Your task to perform on an android device: Go to Yahoo.com Image 0: 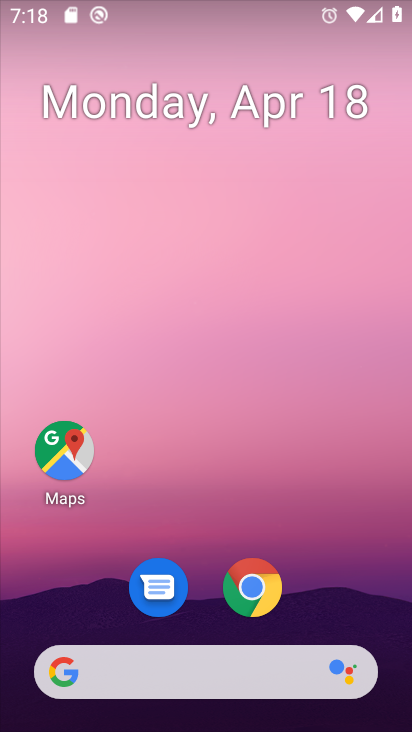
Step 0: drag from (338, 600) to (308, 206)
Your task to perform on an android device: Go to Yahoo.com Image 1: 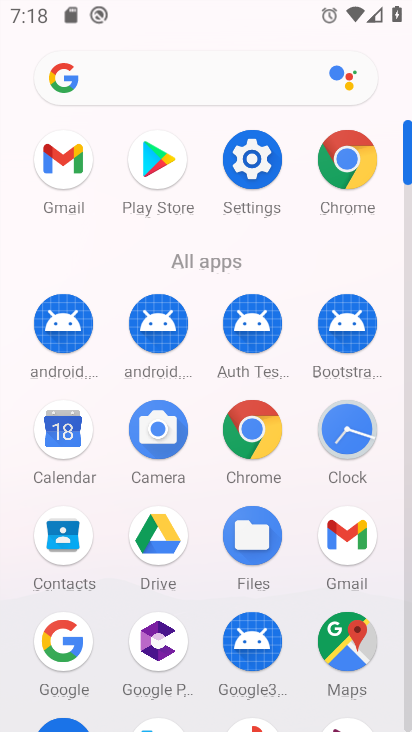
Step 1: click (364, 154)
Your task to perform on an android device: Go to Yahoo.com Image 2: 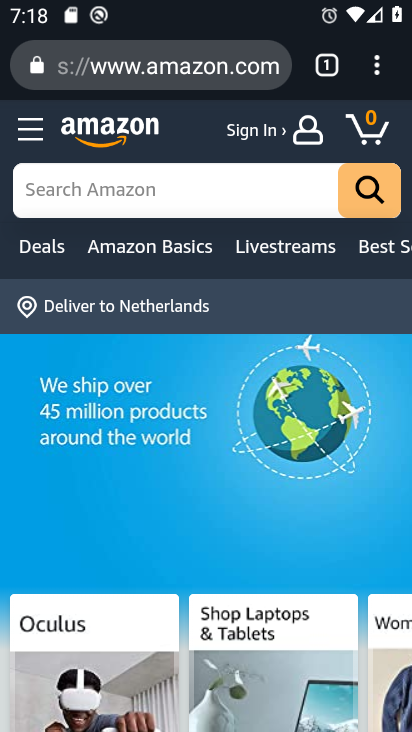
Step 2: click (216, 190)
Your task to perform on an android device: Go to Yahoo.com Image 3: 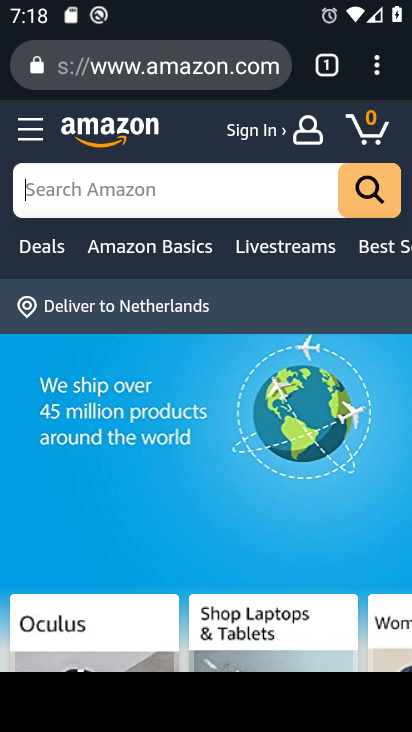
Step 3: type "yahoo.com"
Your task to perform on an android device: Go to Yahoo.com Image 4: 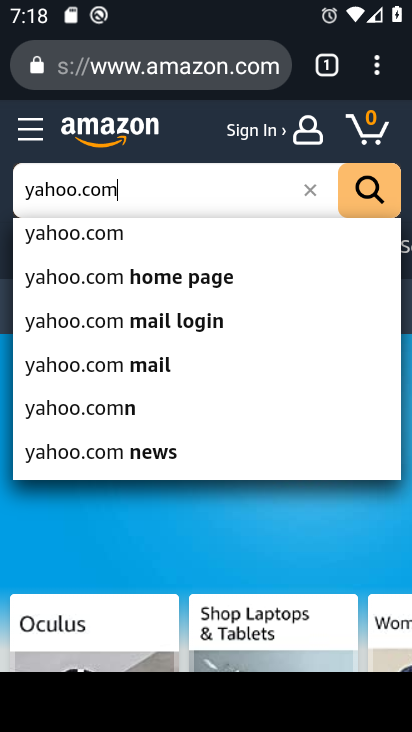
Step 4: click (38, 229)
Your task to perform on an android device: Go to Yahoo.com Image 5: 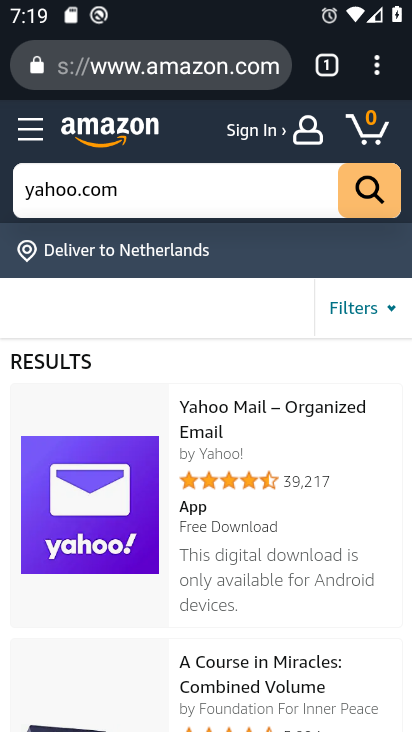
Step 5: task complete